Your task to perform on an android device: Open the stopwatch Image 0: 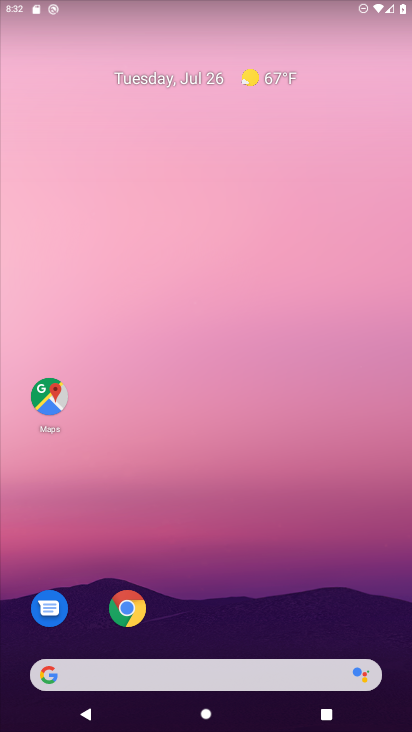
Step 0: drag from (219, 624) to (277, 81)
Your task to perform on an android device: Open the stopwatch Image 1: 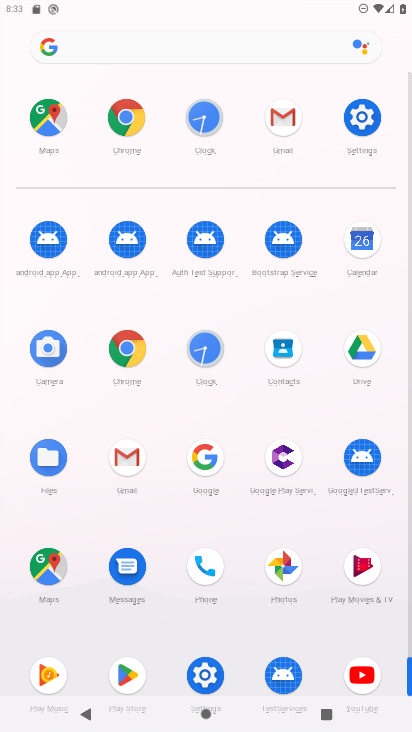
Step 1: click (201, 358)
Your task to perform on an android device: Open the stopwatch Image 2: 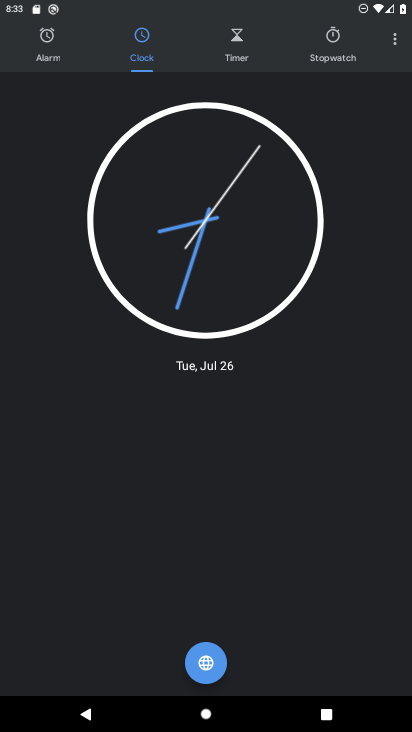
Step 2: click (330, 54)
Your task to perform on an android device: Open the stopwatch Image 3: 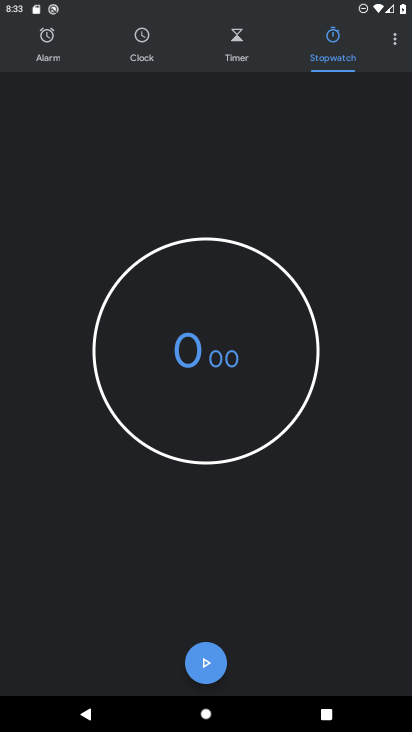
Step 3: click (216, 670)
Your task to perform on an android device: Open the stopwatch Image 4: 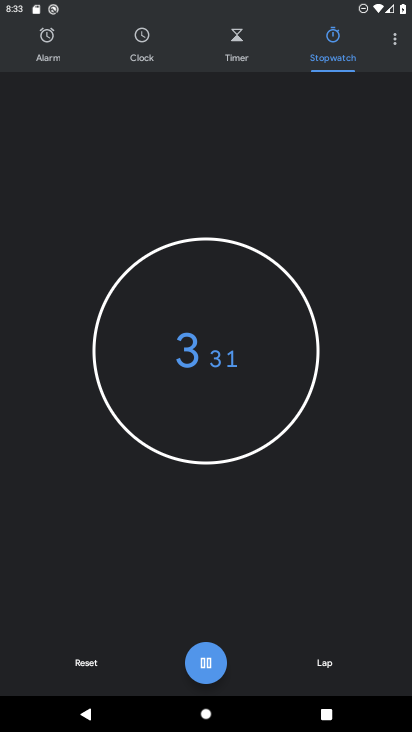
Step 4: task complete